Your task to perform on an android device: clear history in the chrome app Image 0: 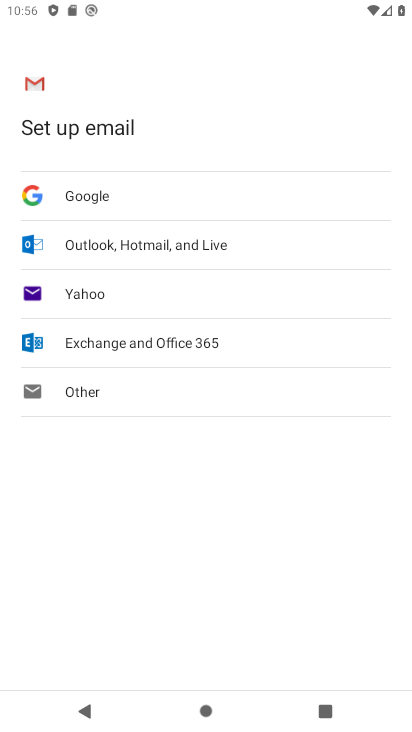
Step 0: click (138, 593)
Your task to perform on an android device: clear history in the chrome app Image 1: 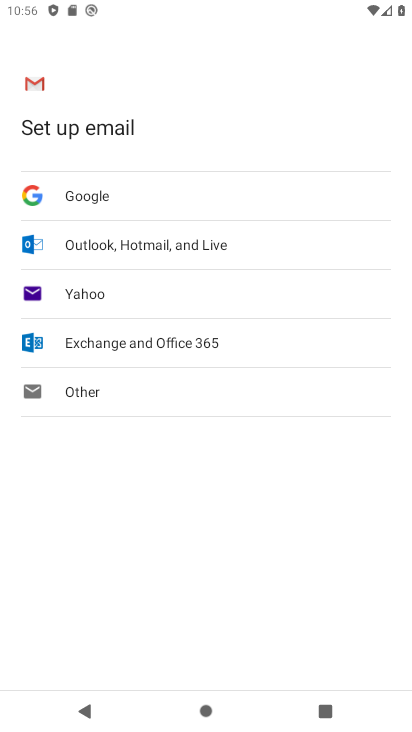
Step 1: press home button
Your task to perform on an android device: clear history in the chrome app Image 2: 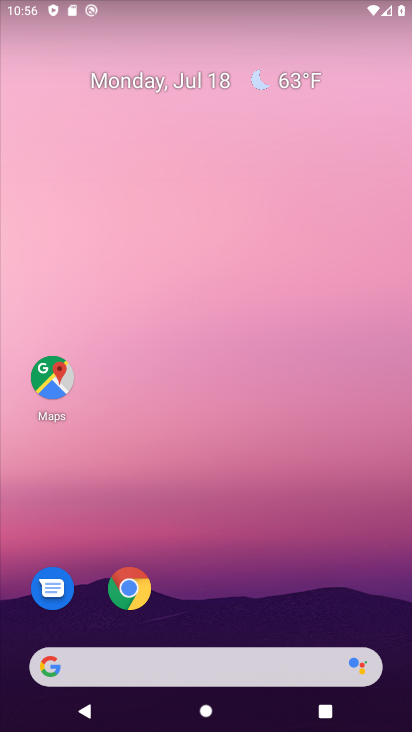
Step 2: click (124, 584)
Your task to perform on an android device: clear history in the chrome app Image 3: 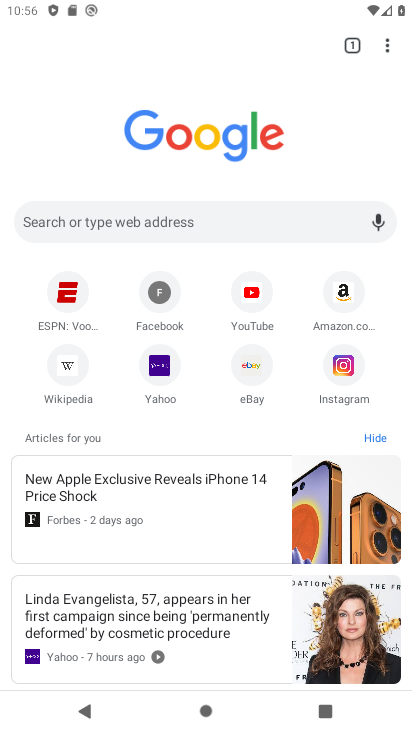
Step 3: drag from (386, 44) to (229, 259)
Your task to perform on an android device: clear history in the chrome app Image 4: 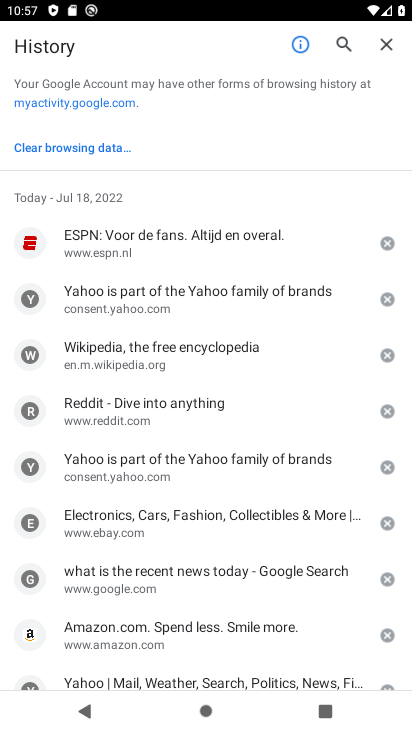
Step 4: click (49, 150)
Your task to perform on an android device: clear history in the chrome app Image 5: 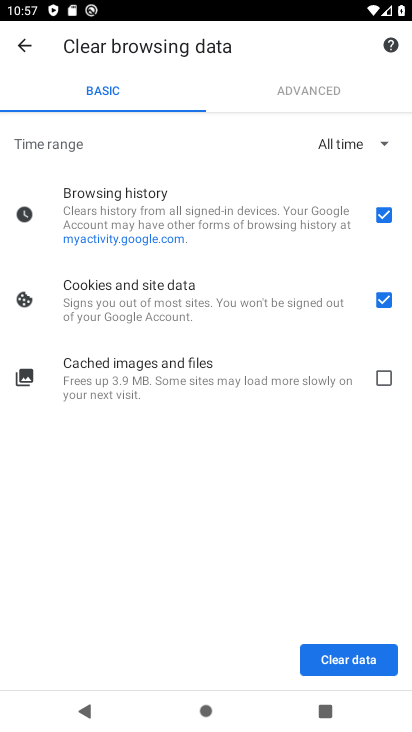
Step 5: click (316, 648)
Your task to perform on an android device: clear history in the chrome app Image 6: 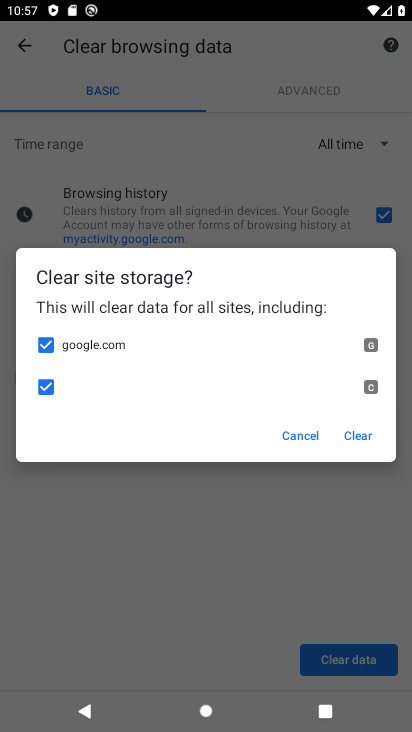
Step 6: click (366, 443)
Your task to perform on an android device: clear history in the chrome app Image 7: 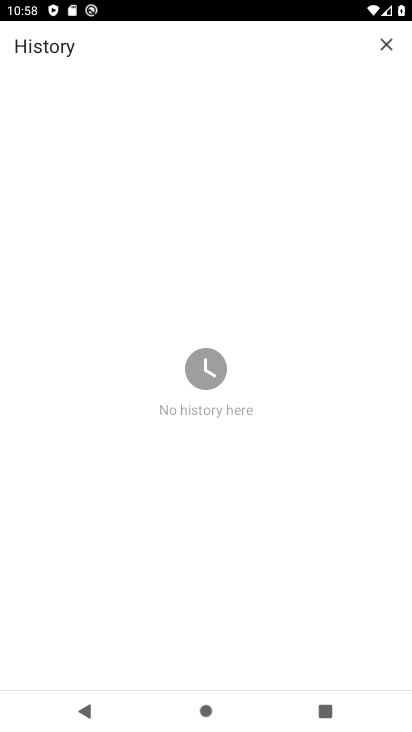
Step 7: task complete